Your task to perform on an android device: Open settings on Google Maps Image 0: 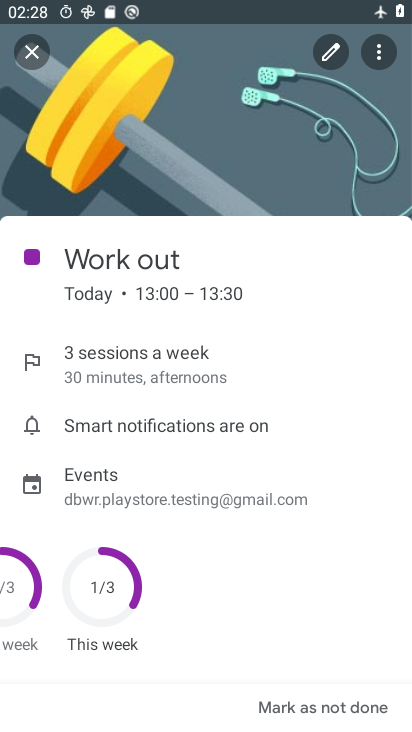
Step 0: press home button
Your task to perform on an android device: Open settings on Google Maps Image 1: 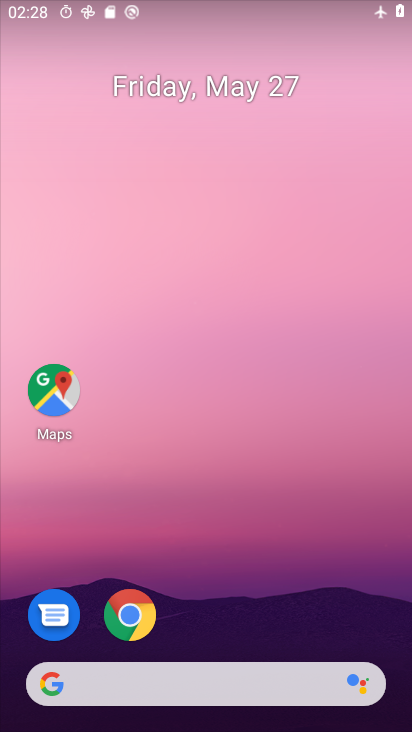
Step 1: drag from (385, 629) to (370, 246)
Your task to perform on an android device: Open settings on Google Maps Image 2: 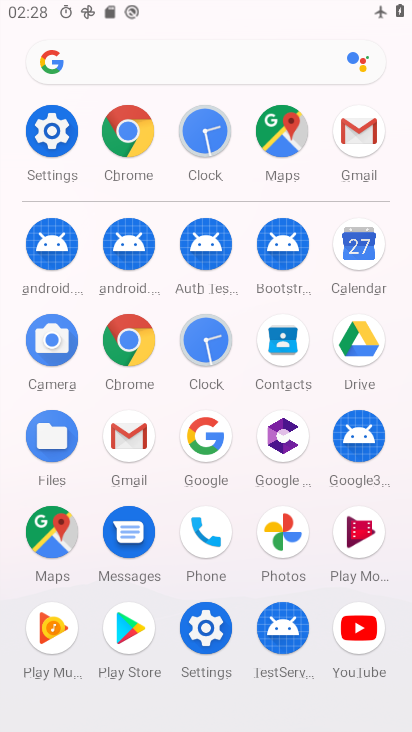
Step 2: click (52, 535)
Your task to perform on an android device: Open settings on Google Maps Image 3: 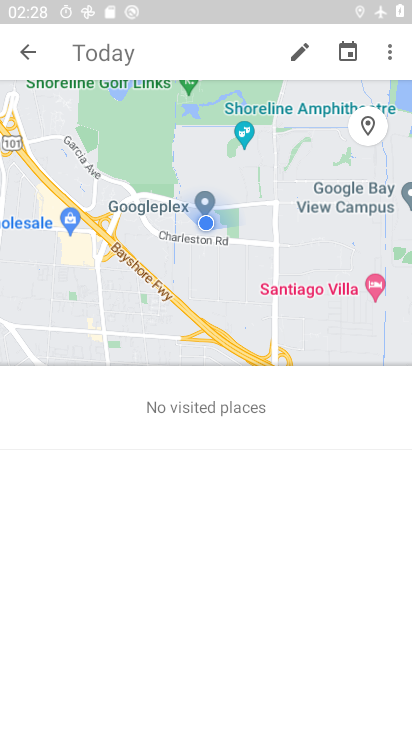
Step 3: click (32, 56)
Your task to perform on an android device: Open settings on Google Maps Image 4: 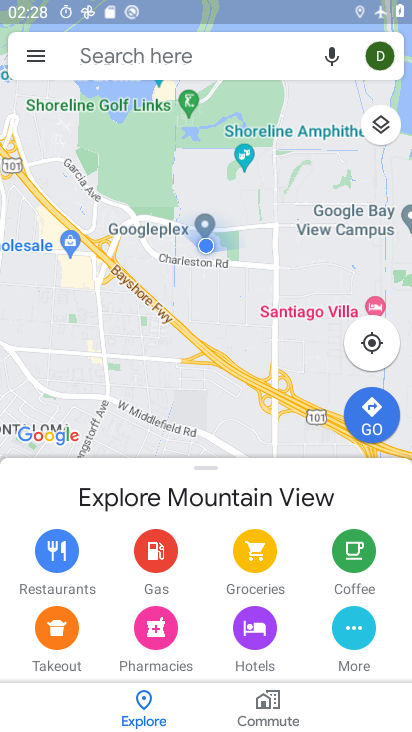
Step 4: click (35, 53)
Your task to perform on an android device: Open settings on Google Maps Image 5: 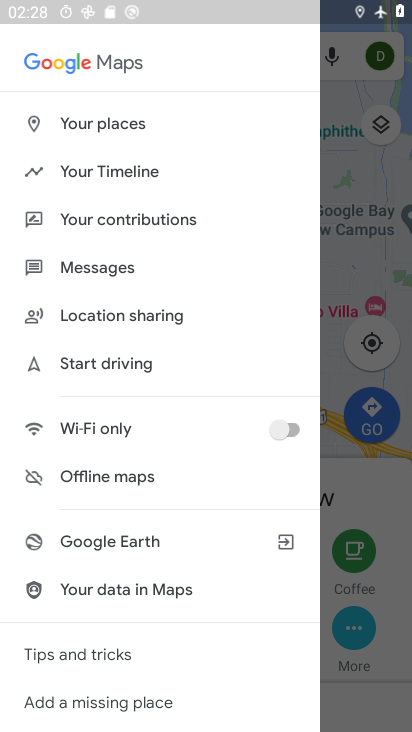
Step 5: drag from (212, 566) to (213, 467)
Your task to perform on an android device: Open settings on Google Maps Image 6: 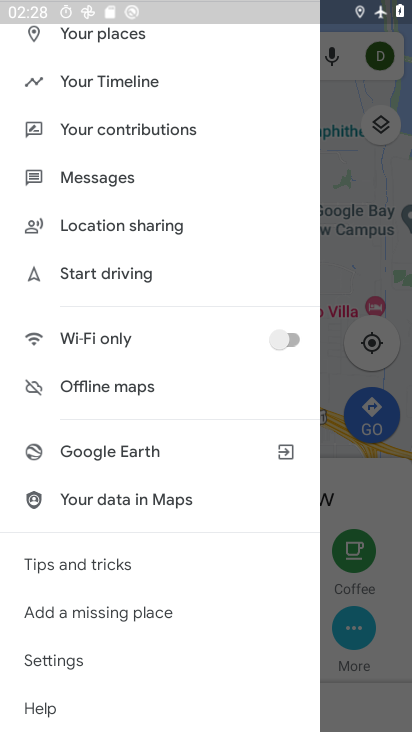
Step 6: drag from (209, 609) to (217, 456)
Your task to perform on an android device: Open settings on Google Maps Image 7: 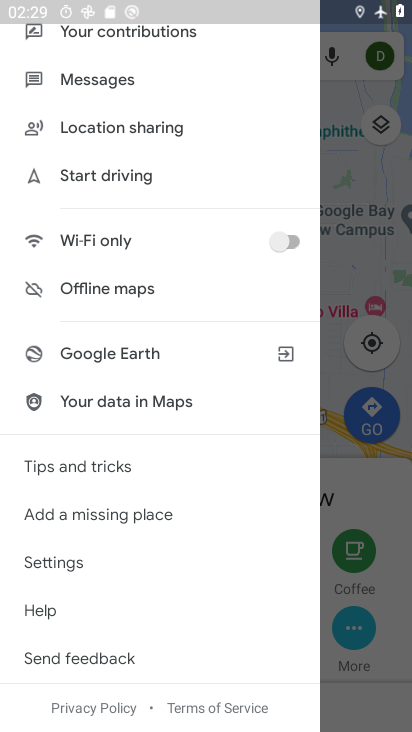
Step 7: click (88, 577)
Your task to perform on an android device: Open settings on Google Maps Image 8: 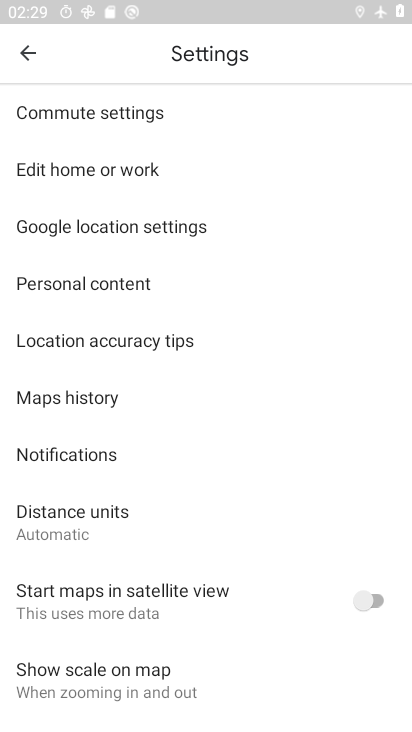
Step 8: task complete